Your task to perform on an android device: Open display settings Image 0: 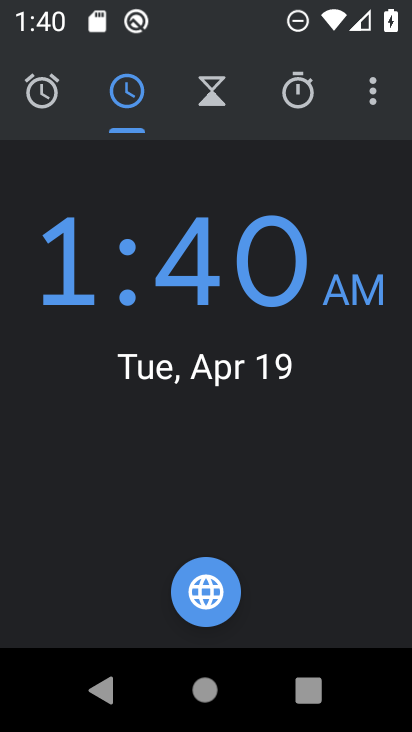
Step 0: press home button
Your task to perform on an android device: Open display settings Image 1: 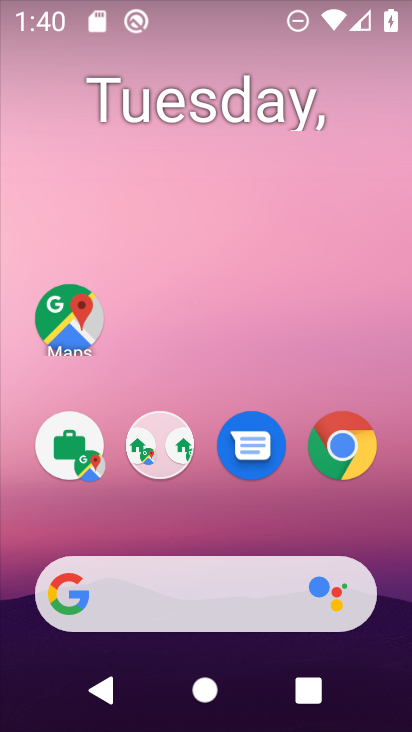
Step 1: drag from (307, 527) to (306, 215)
Your task to perform on an android device: Open display settings Image 2: 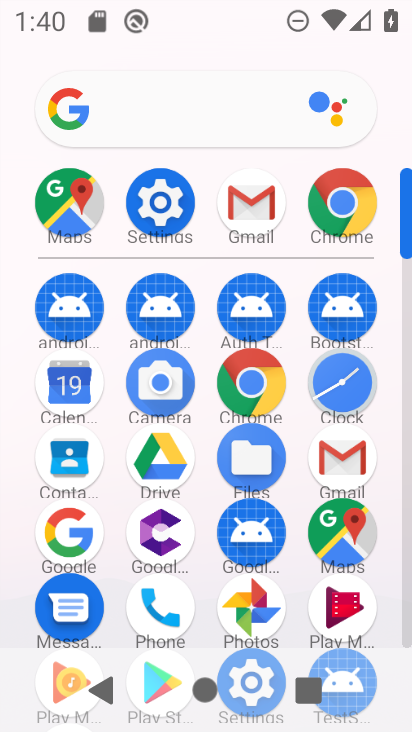
Step 2: click (182, 213)
Your task to perform on an android device: Open display settings Image 3: 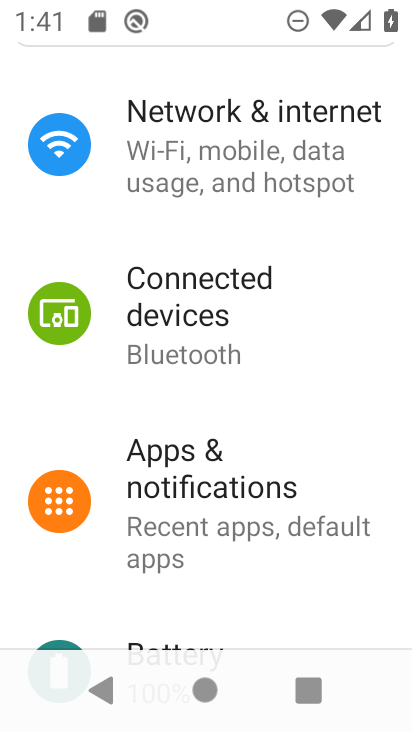
Step 3: drag from (210, 438) to (247, 631)
Your task to perform on an android device: Open display settings Image 4: 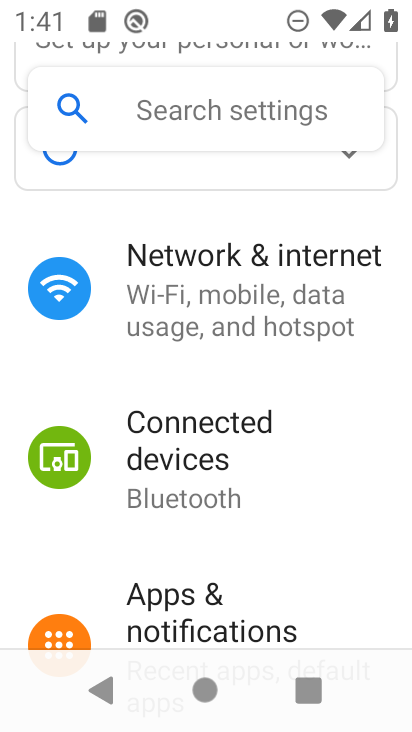
Step 4: drag from (263, 450) to (262, 615)
Your task to perform on an android device: Open display settings Image 5: 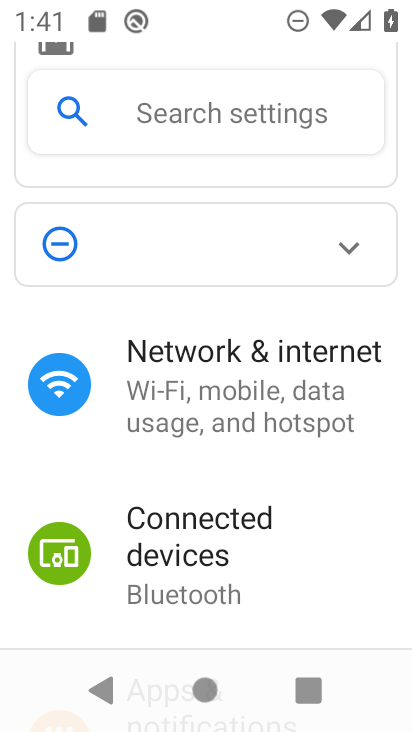
Step 5: drag from (238, 459) to (230, 240)
Your task to perform on an android device: Open display settings Image 6: 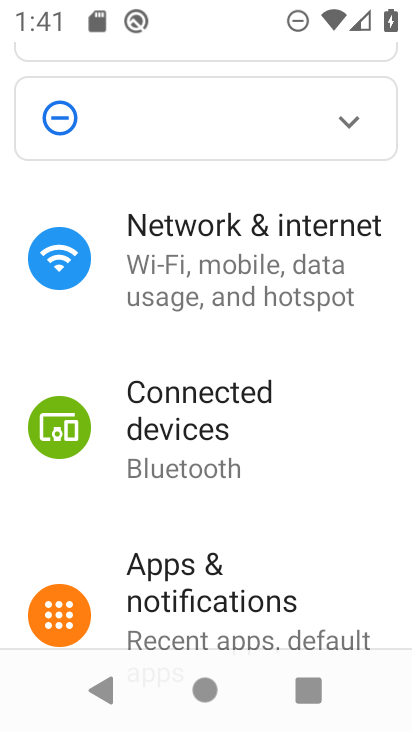
Step 6: drag from (217, 450) to (244, 283)
Your task to perform on an android device: Open display settings Image 7: 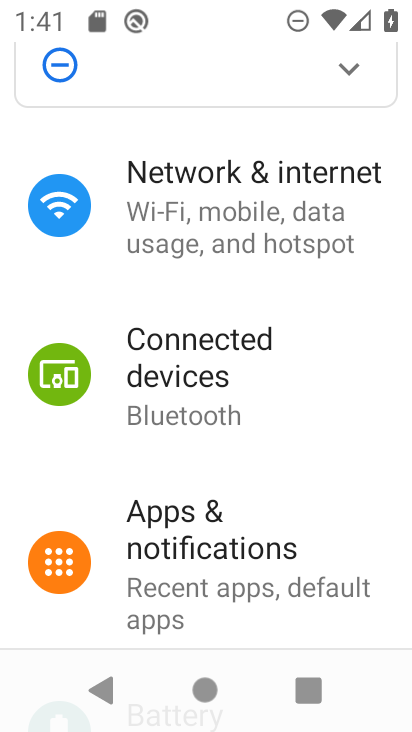
Step 7: drag from (283, 529) to (276, 276)
Your task to perform on an android device: Open display settings Image 8: 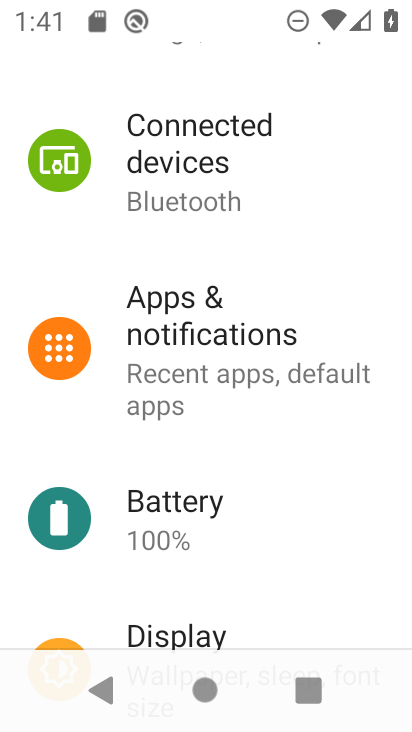
Step 8: drag from (249, 591) to (258, 355)
Your task to perform on an android device: Open display settings Image 9: 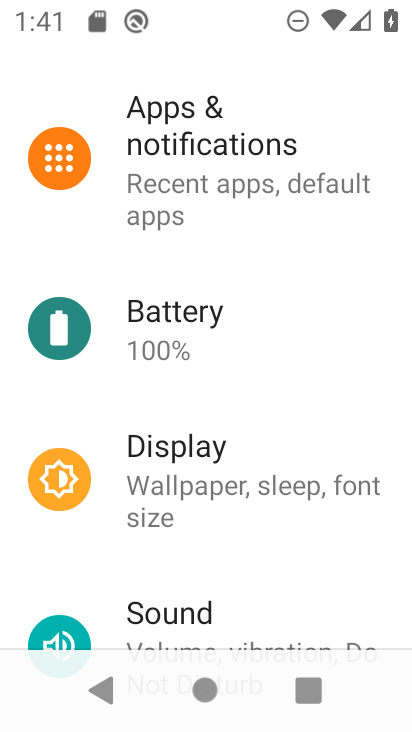
Step 9: click (219, 513)
Your task to perform on an android device: Open display settings Image 10: 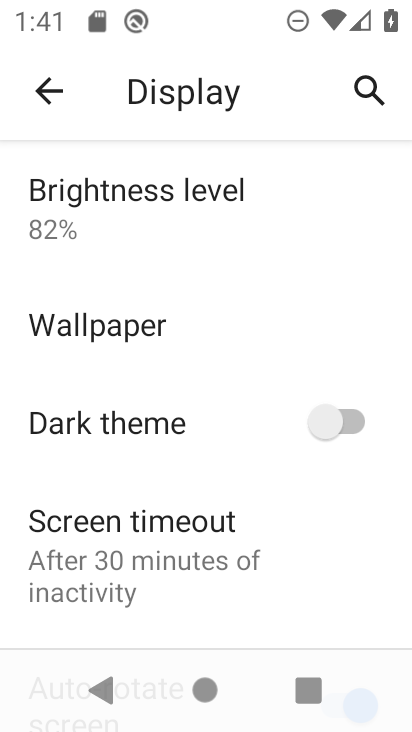
Step 10: task complete